Your task to perform on an android device: empty trash in the gmail app Image 0: 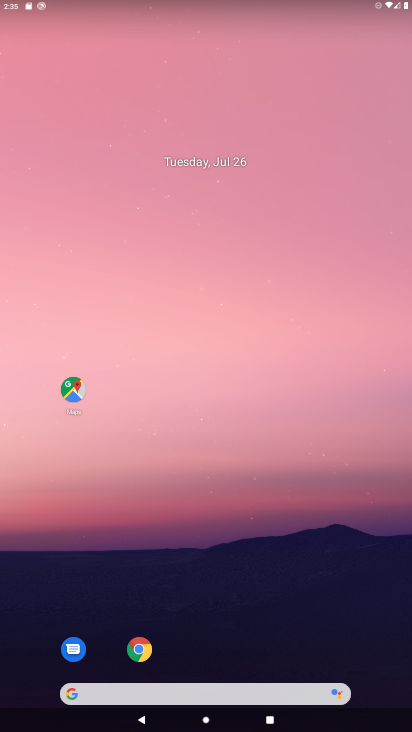
Step 0: drag from (209, 692) to (229, 60)
Your task to perform on an android device: empty trash in the gmail app Image 1: 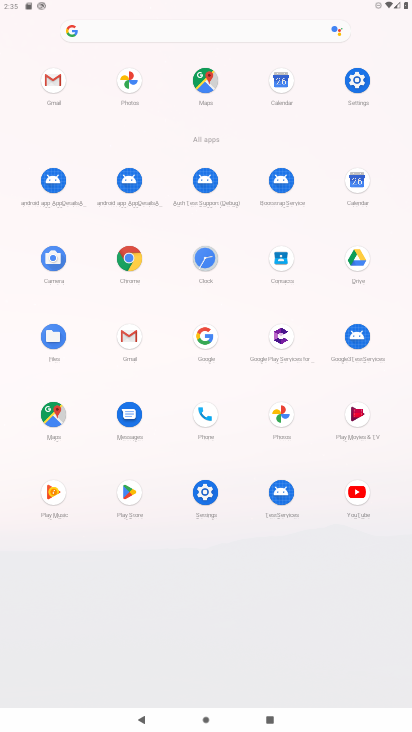
Step 1: click (126, 343)
Your task to perform on an android device: empty trash in the gmail app Image 2: 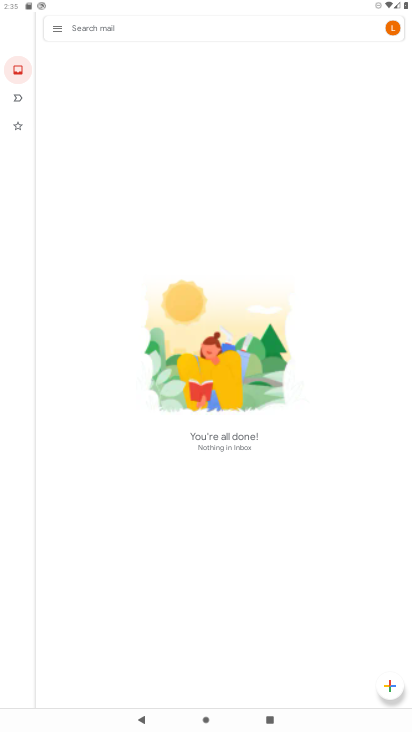
Step 2: click (58, 28)
Your task to perform on an android device: empty trash in the gmail app Image 3: 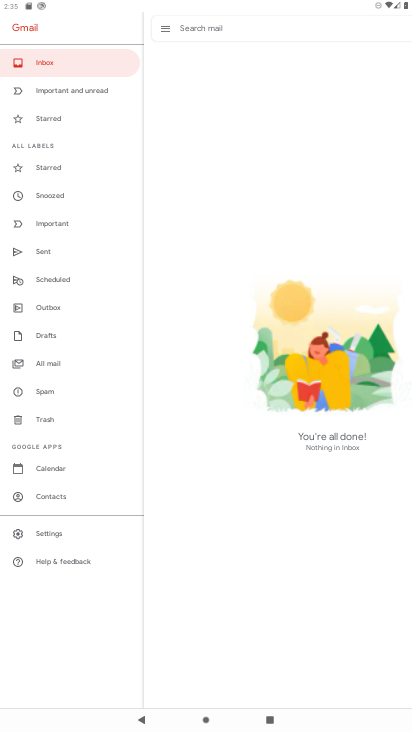
Step 3: click (57, 423)
Your task to perform on an android device: empty trash in the gmail app Image 4: 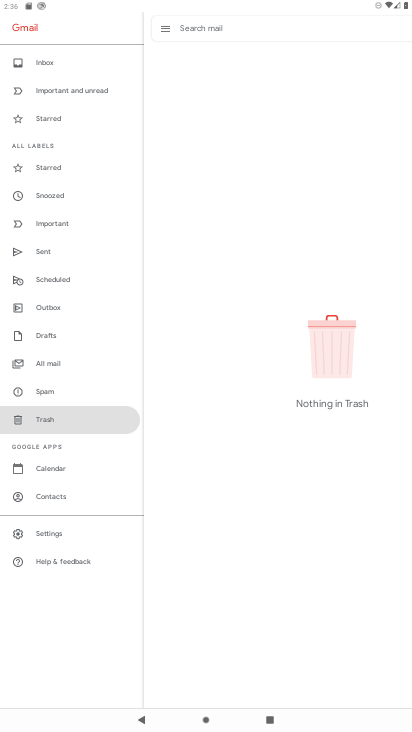
Step 4: task complete